Your task to perform on an android device: What's on my calendar tomorrow? Image 0: 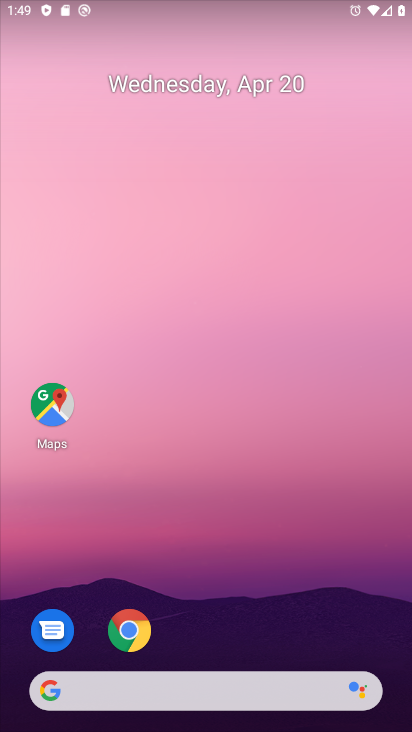
Step 0: drag from (119, 146) to (72, 128)
Your task to perform on an android device: What's on my calendar tomorrow? Image 1: 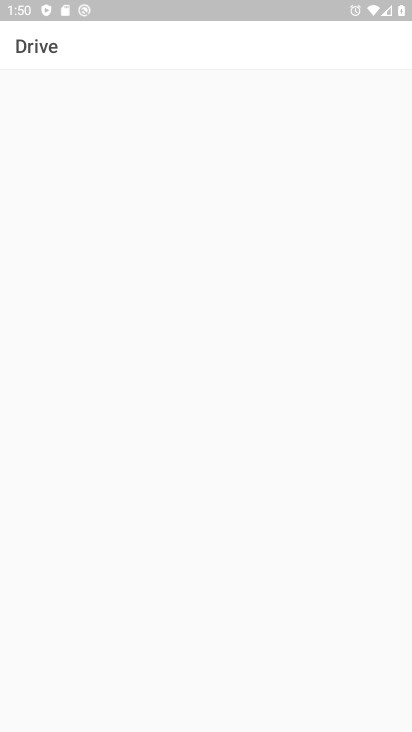
Step 1: press home button
Your task to perform on an android device: What's on my calendar tomorrow? Image 2: 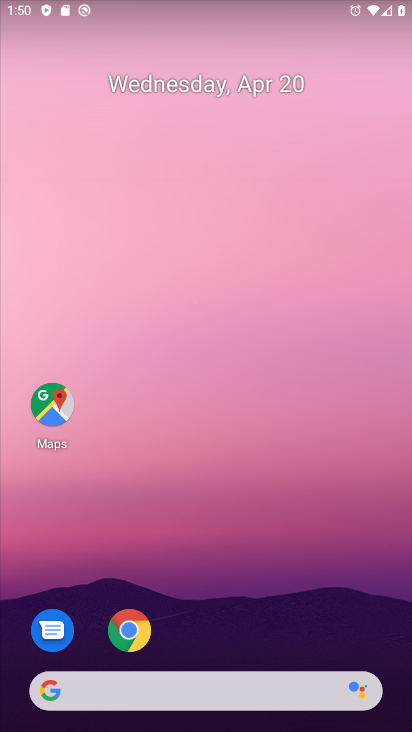
Step 2: drag from (212, 616) to (115, 130)
Your task to perform on an android device: What's on my calendar tomorrow? Image 3: 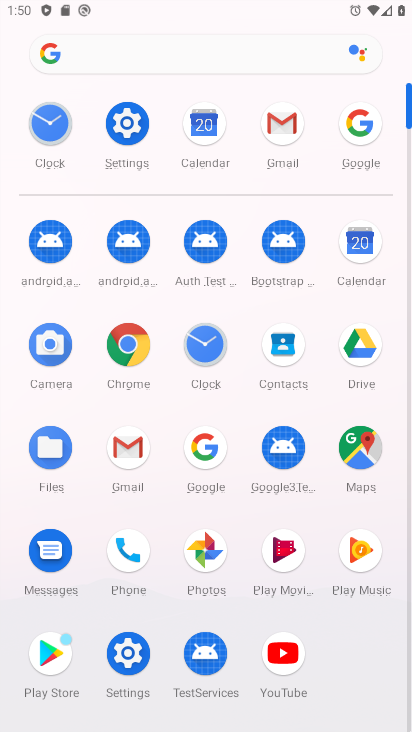
Step 3: click (197, 130)
Your task to perform on an android device: What's on my calendar tomorrow? Image 4: 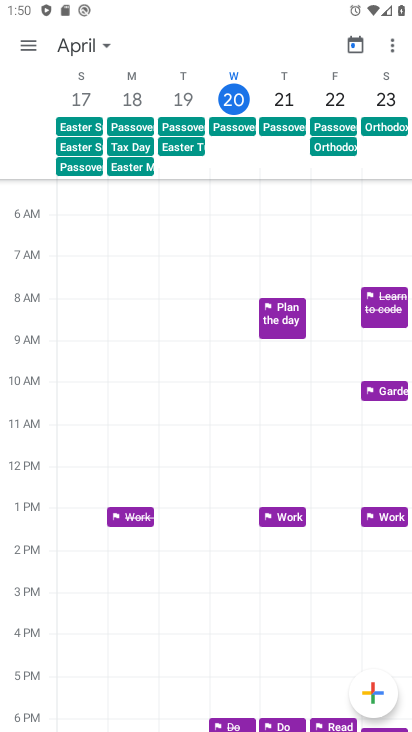
Step 4: click (23, 44)
Your task to perform on an android device: What's on my calendar tomorrow? Image 5: 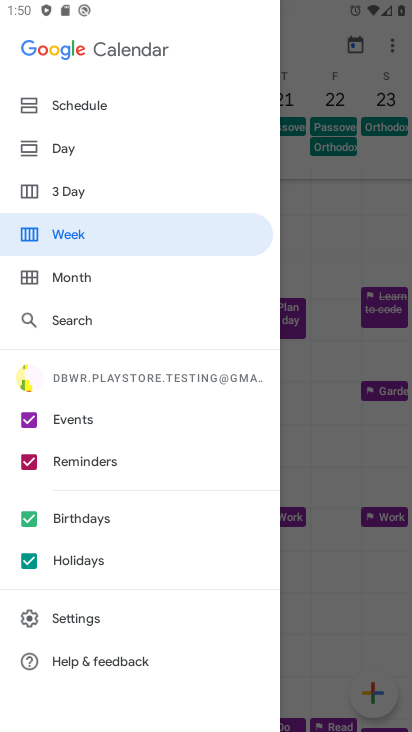
Step 5: click (59, 108)
Your task to perform on an android device: What's on my calendar tomorrow? Image 6: 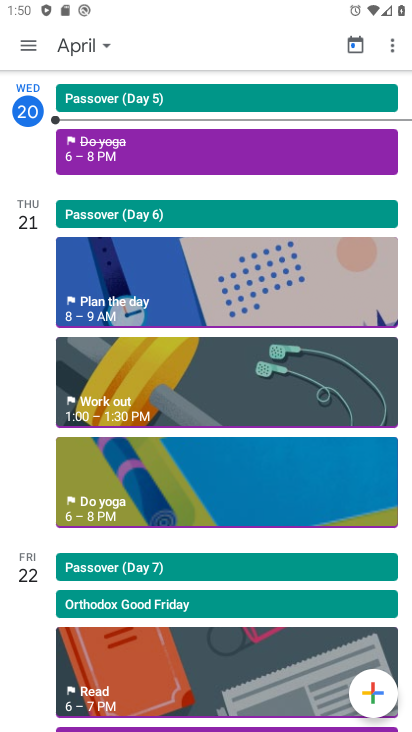
Step 6: click (28, 220)
Your task to perform on an android device: What's on my calendar tomorrow? Image 7: 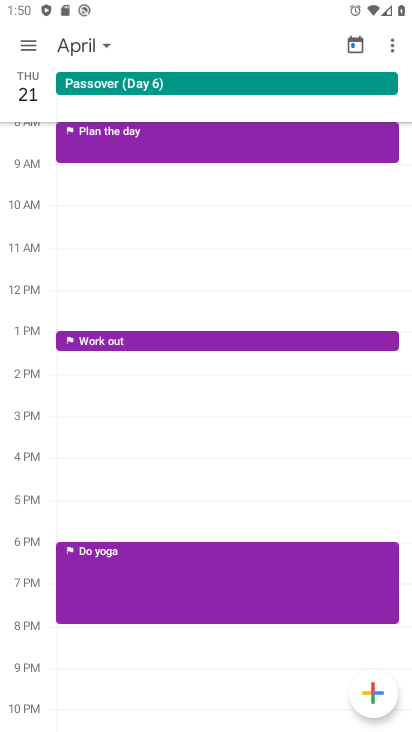
Step 7: task complete